Your task to perform on an android device: empty trash in google photos Image 0: 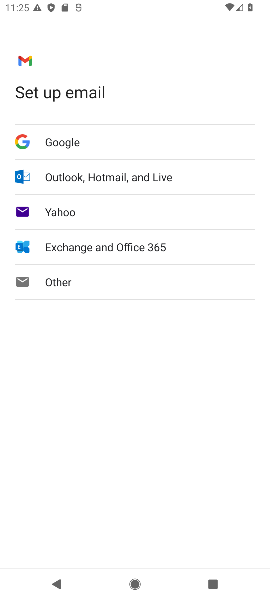
Step 0: press home button
Your task to perform on an android device: empty trash in google photos Image 1: 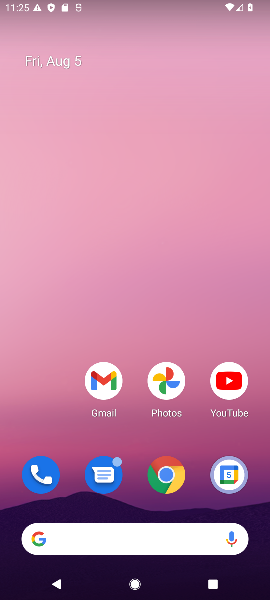
Step 1: drag from (129, 502) to (143, 119)
Your task to perform on an android device: empty trash in google photos Image 2: 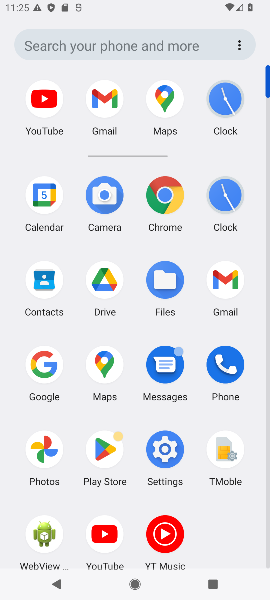
Step 2: click (45, 436)
Your task to perform on an android device: empty trash in google photos Image 3: 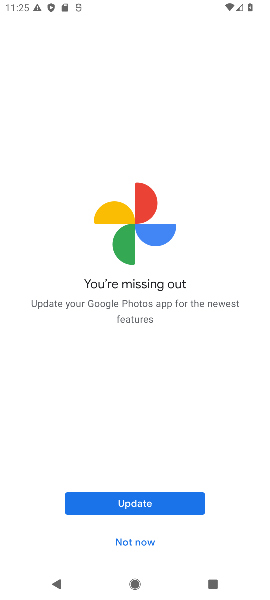
Step 3: click (137, 541)
Your task to perform on an android device: empty trash in google photos Image 4: 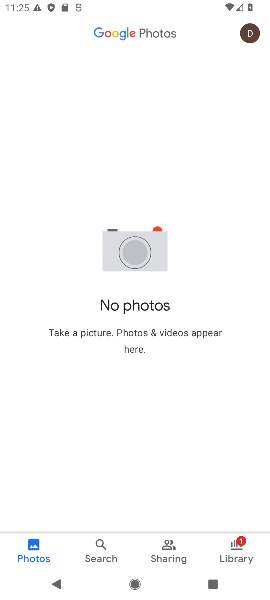
Step 4: click (238, 550)
Your task to perform on an android device: empty trash in google photos Image 5: 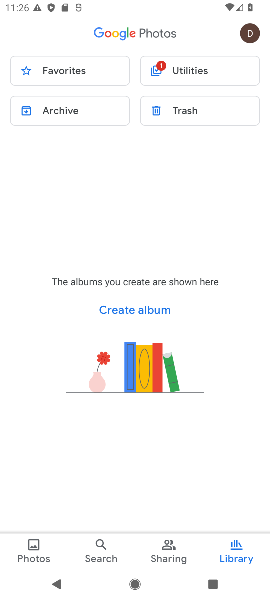
Step 5: click (197, 116)
Your task to perform on an android device: empty trash in google photos Image 6: 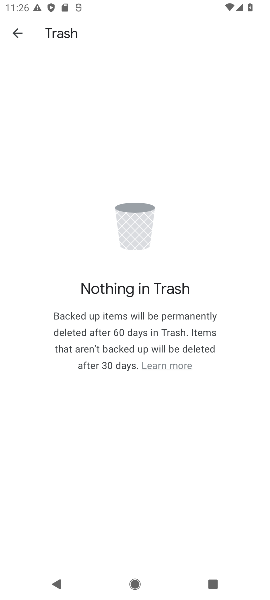
Step 6: task complete